Your task to perform on an android device: delete a single message in the gmail app Image 0: 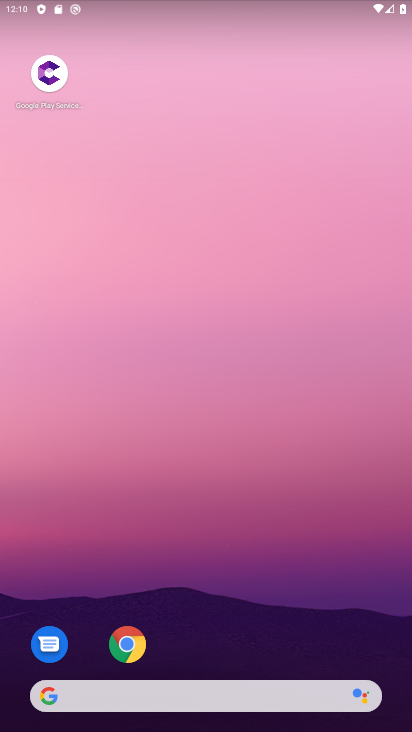
Step 0: drag from (383, 637) to (304, 251)
Your task to perform on an android device: delete a single message in the gmail app Image 1: 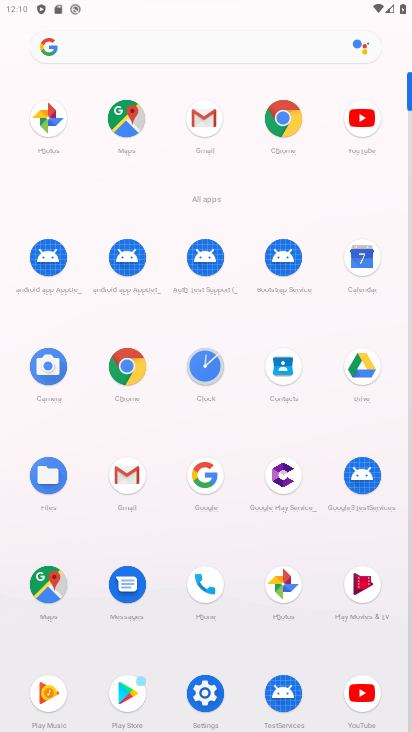
Step 1: click (219, 120)
Your task to perform on an android device: delete a single message in the gmail app Image 2: 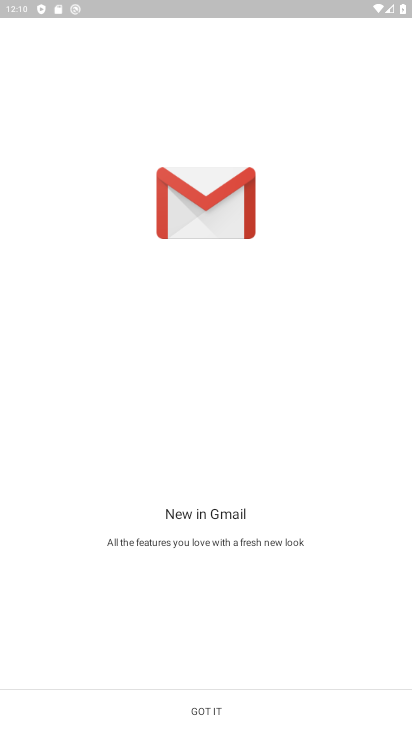
Step 2: click (215, 705)
Your task to perform on an android device: delete a single message in the gmail app Image 3: 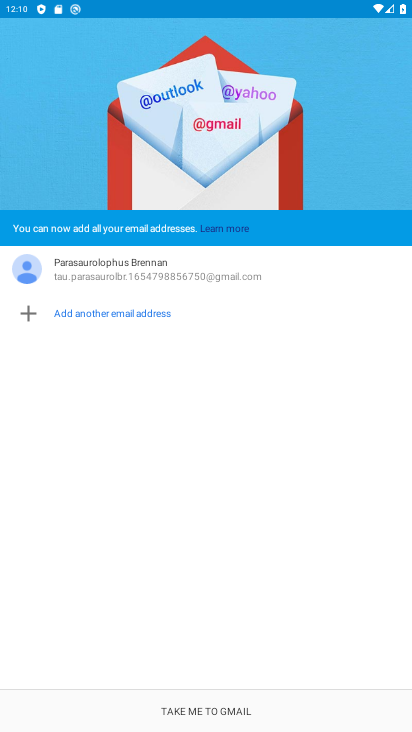
Step 3: click (212, 709)
Your task to perform on an android device: delete a single message in the gmail app Image 4: 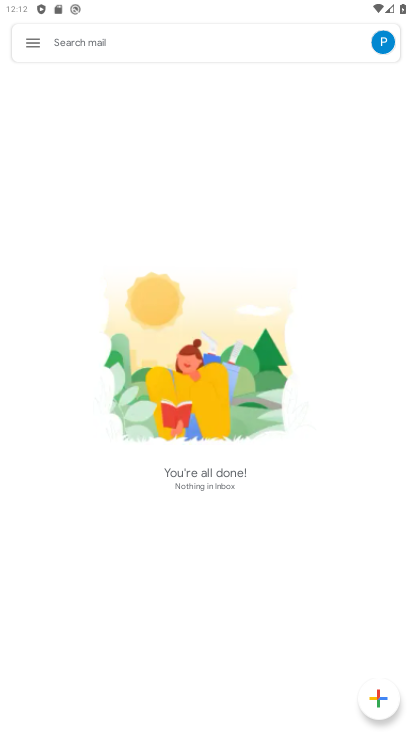
Step 4: task complete